Your task to perform on an android device: Show me productivity apps on the Play Store Image 0: 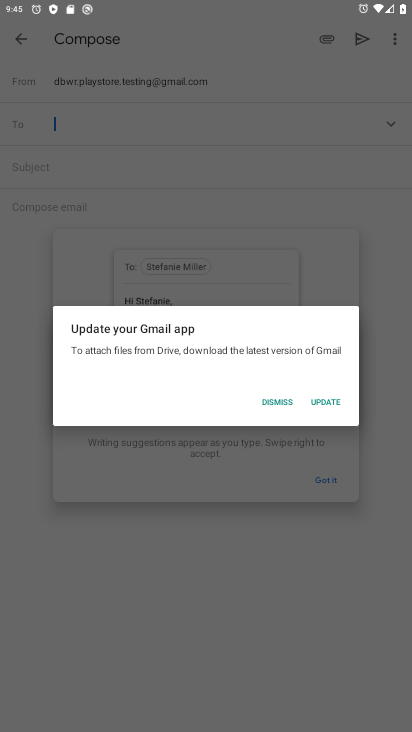
Step 0: press home button
Your task to perform on an android device: Show me productivity apps on the Play Store Image 1: 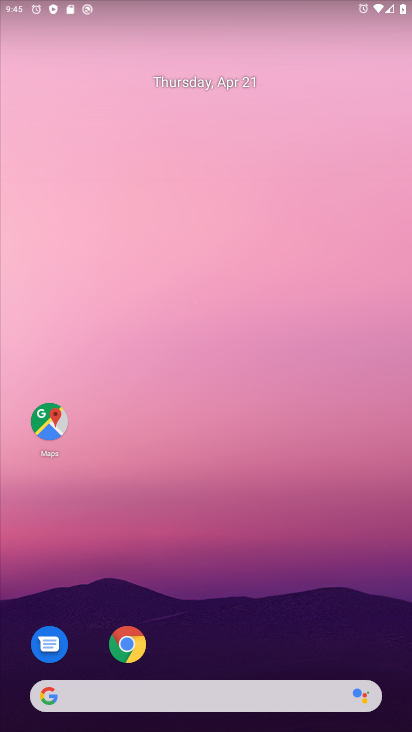
Step 1: drag from (189, 664) to (231, 124)
Your task to perform on an android device: Show me productivity apps on the Play Store Image 2: 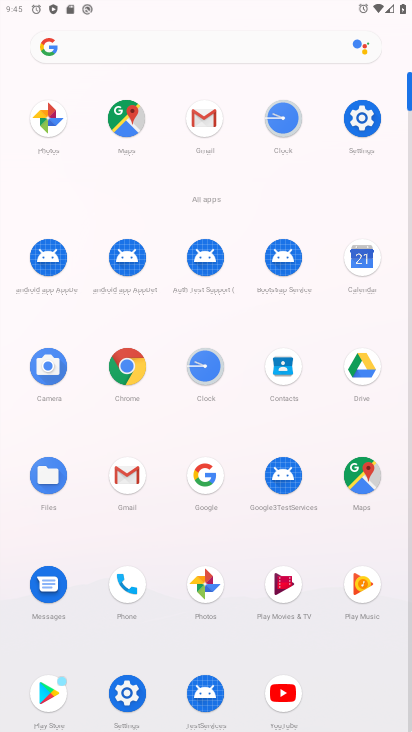
Step 2: click (51, 693)
Your task to perform on an android device: Show me productivity apps on the Play Store Image 3: 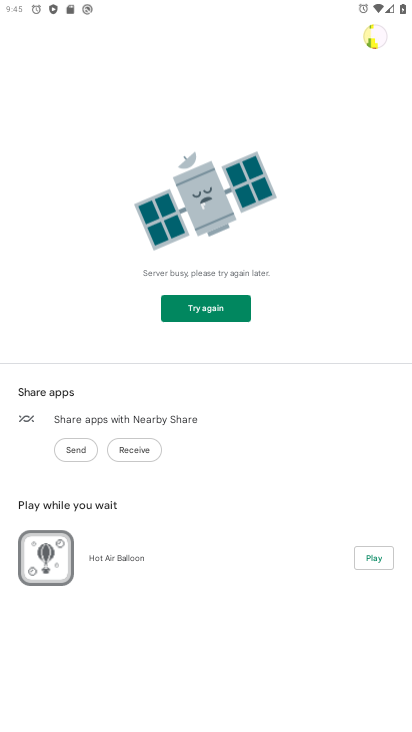
Step 3: click (204, 312)
Your task to perform on an android device: Show me productivity apps on the Play Store Image 4: 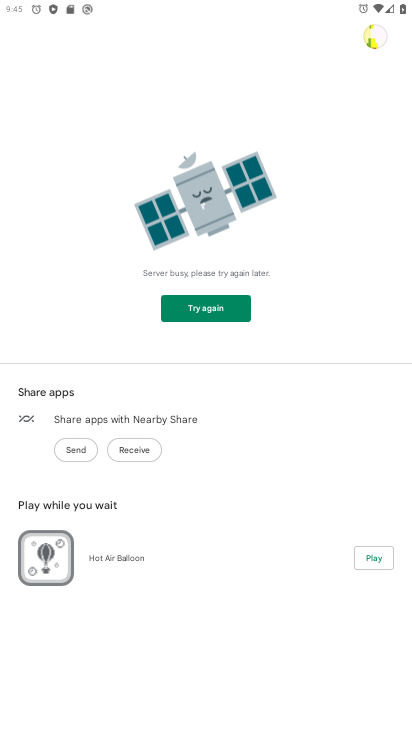
Step 4: click (371, 38)
Your task to perform on an android device: Show me productivity apps on the Play Store Image 5: 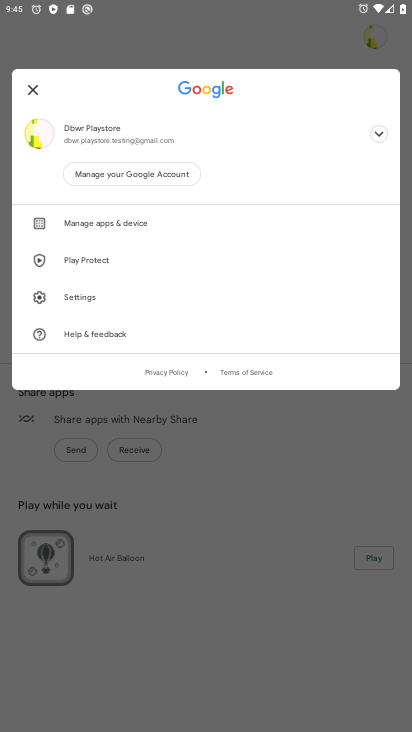
Step 5: click (168, 124)
Your task to perform on an android device: Show me productivity apps on the Play Store Image 6: 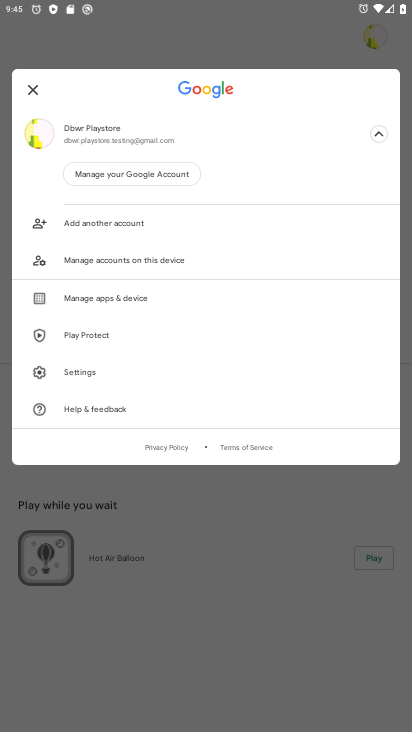
Step 6: click (146, 143)
Your task to perform on an android device: Show me productivity apps on the Play Store Image 7: 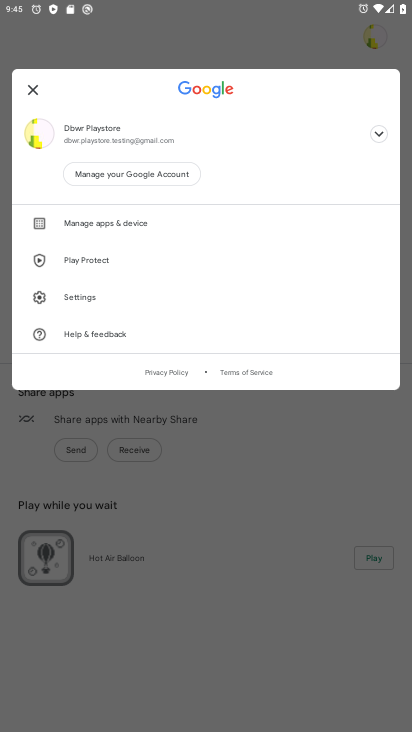
Step 7: task complete